Your task to perform on an android device: turn on the 12-hour format for clock Image 0: 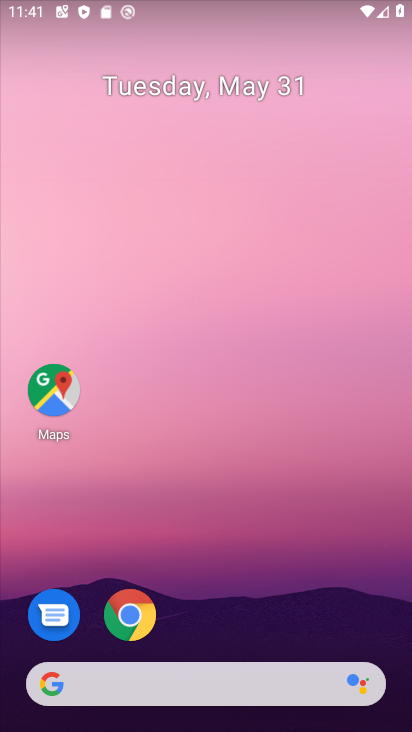
Step 0: task complete